Your task to perform on an android device: allow notifications from all sites in the chrome app Image 0: 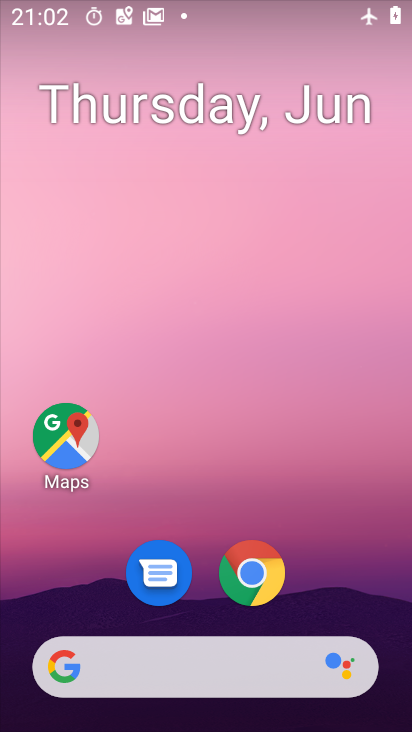
Step 0: drag from (310, 510) to (268, 243)
Your task to perform on an android device: allow notifications from all sites in the chrome app Image 1: 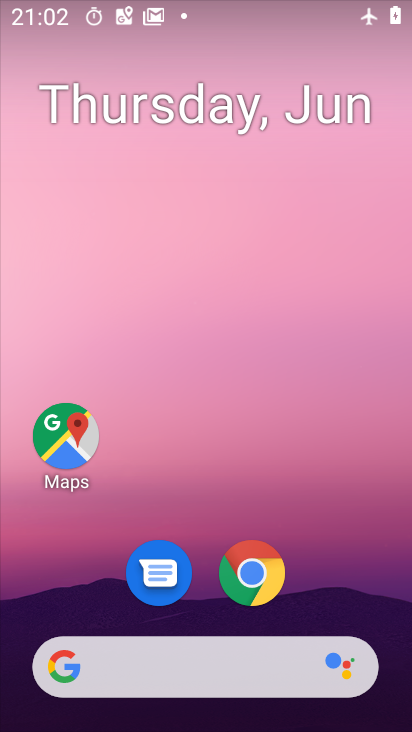
Step 1: click (240, 580)
Your task to perform on an android device: allow notifications from all sites in the chrome app Image 2: 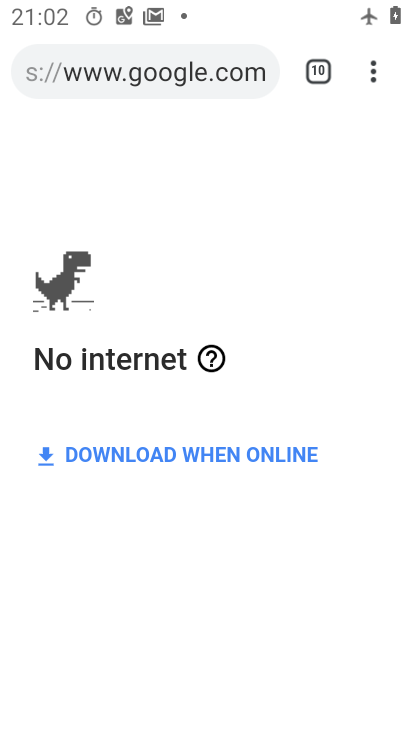
Step 2: click (377, 66)
Your task to perform on an android device: allow notifications from all sites in the chrome app Image 3: 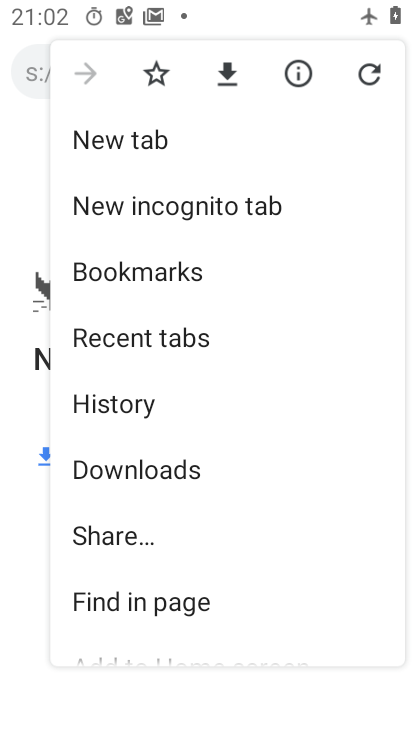
Step 3: drag from (147, 552) to (254, 250)
Your task to perform on an android device: allow notifications from all sites in the chrome app Image 4: 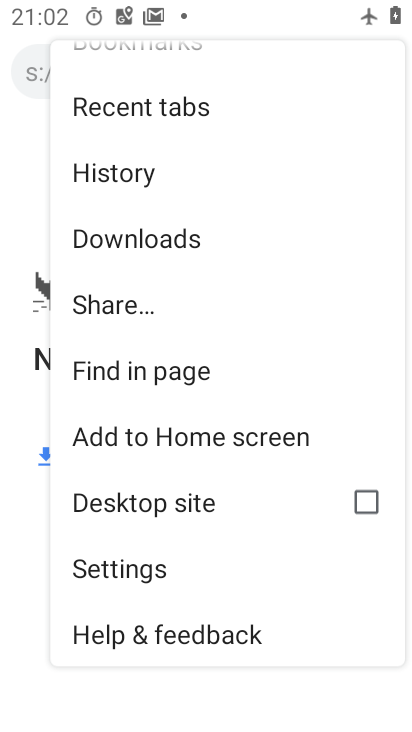
Step 4: click (140, 565)
Your task to perform on an android device: allow notifications from all sites in the chrome app Image 5: 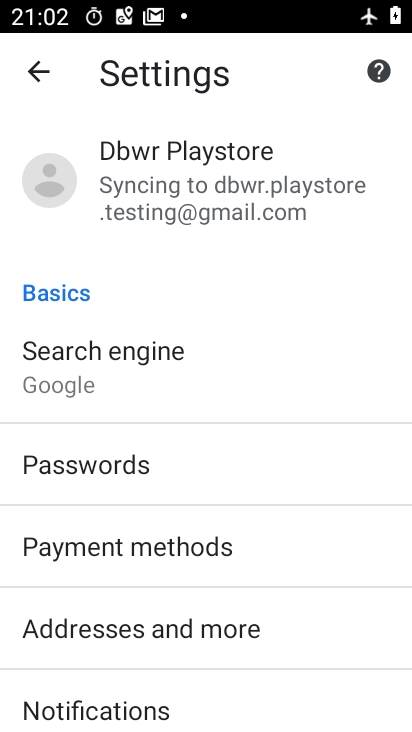
Step 5: drag from (138, 608) to (232, 277)
Your task to perform on an android device: allow notifications from all sites in the chrome app Image 6: 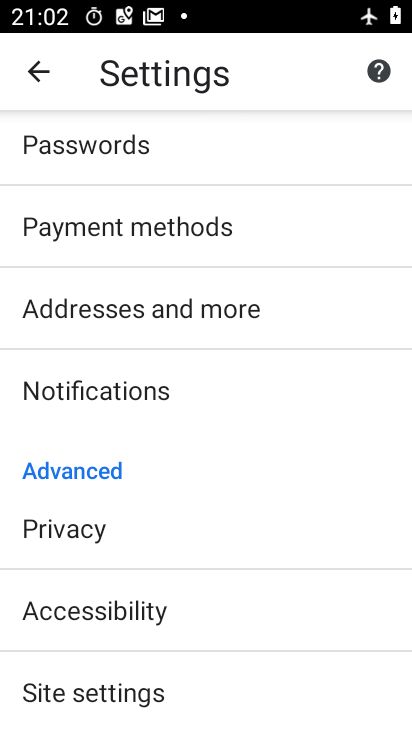
Step 6: drag from (110, 630) to (197, 404)
Your task to perform on an android device: allow notifications from all sites in the chrome app Image 7: 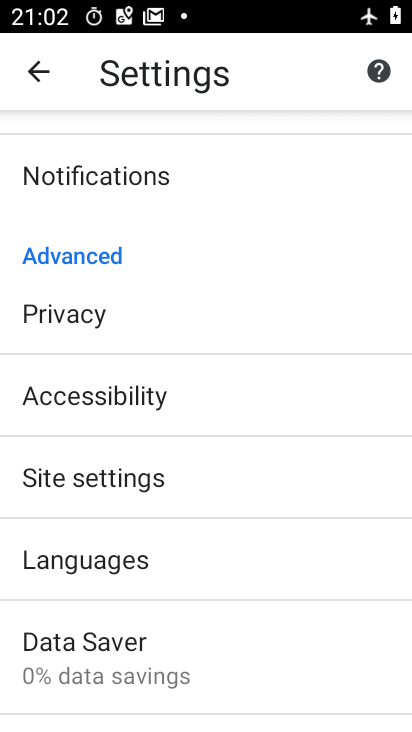
Step 7: click (136, 475)
Your task to perform on an android device: allow notifications from all sites in the chrome app Image 8: 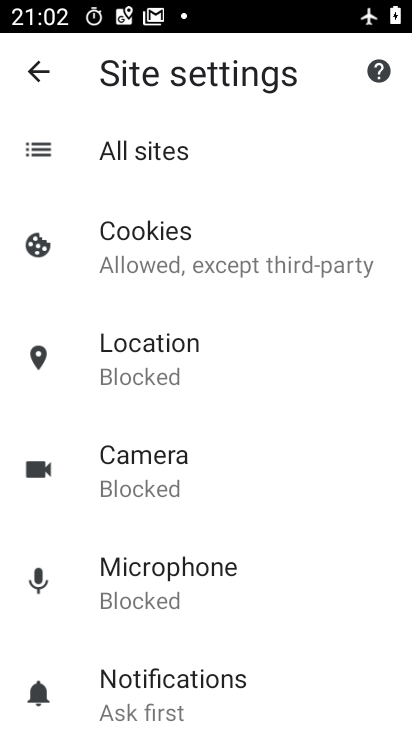
Step 8: click (203, 222)
Your task to perform on an android device: allow notifications from all sites in the chrome app Image 9: 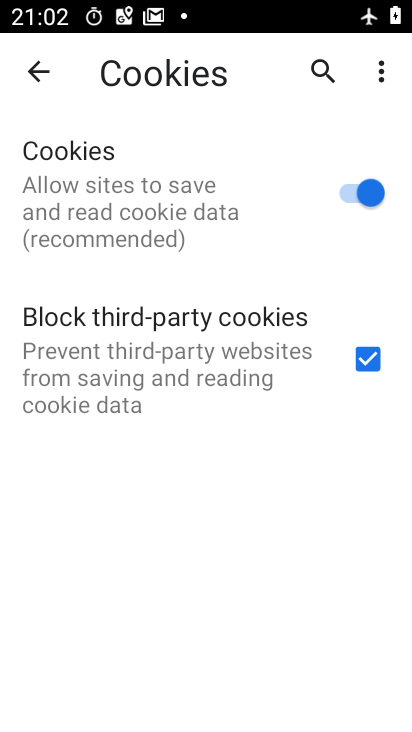
Step 9: click (33, 74)
Your task to perform on an android device: allow notifications from all sites in the chrome app Image 10: 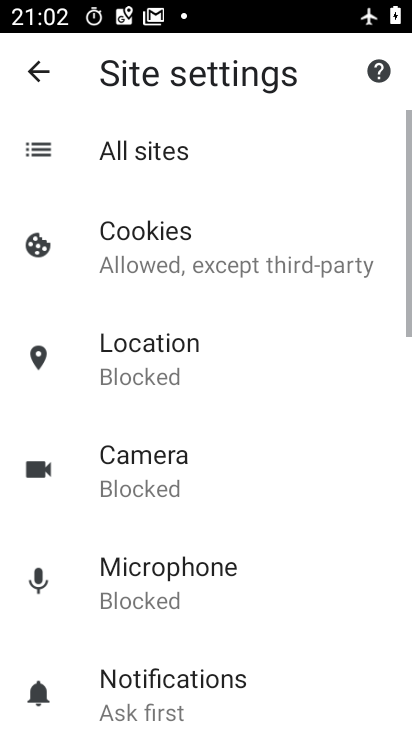
Step 10: click (203, 379)
Your task to perform on an android device: allow notifications from all sites in the chrome app Image 11: 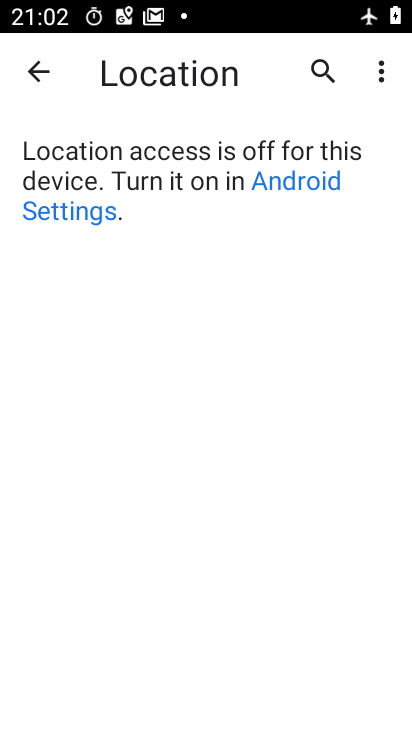
Step 11: click (35, 87)
Your task to perform on an android device: allow notifications from all sites in the chrome app Image 12: 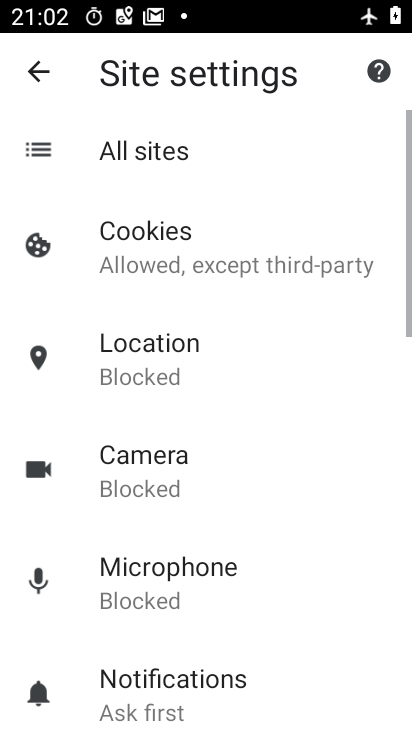
Step 12: click (160, 585)
Your task to perform on an android device: allow notifications from all sites in the chrome app Image 13: 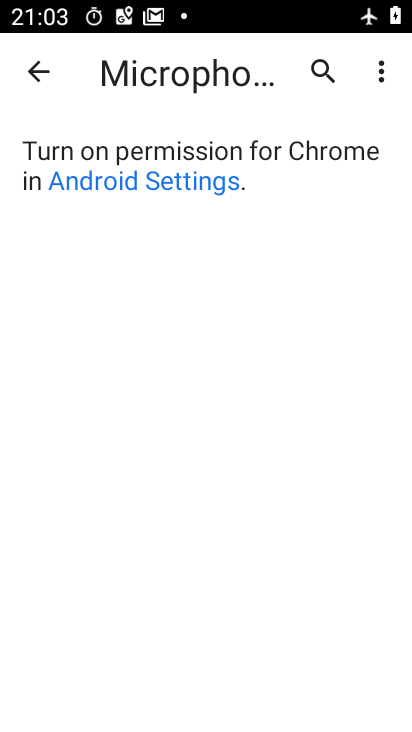
Step 13: drag from (170, 573) to (133, 260)
Your task to perform on an android device: allow notifications from all sites in the chrome app Image 14: 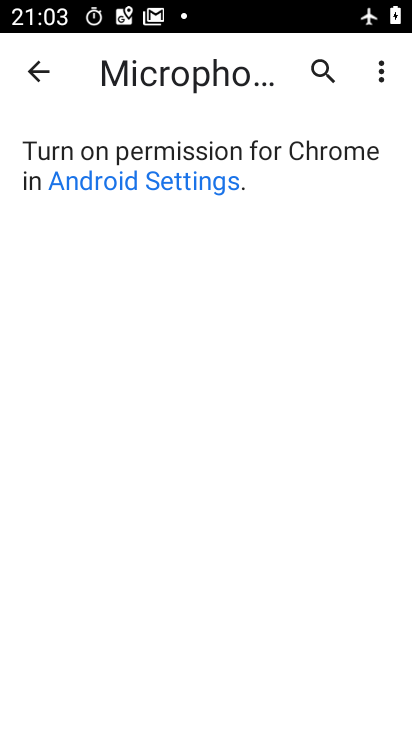
Step 14: click (46, 96)
Your task to perform on an android device: allow notifications from all sites in the chrome app Image 15: 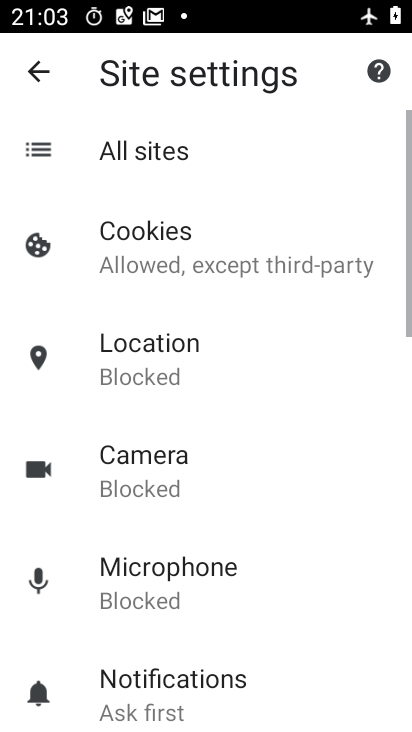
Step 15: drag from (193, 580) to (308, 236)
Your task to perform on an android device: allow notifications from all sites in the chrome app Image 16: 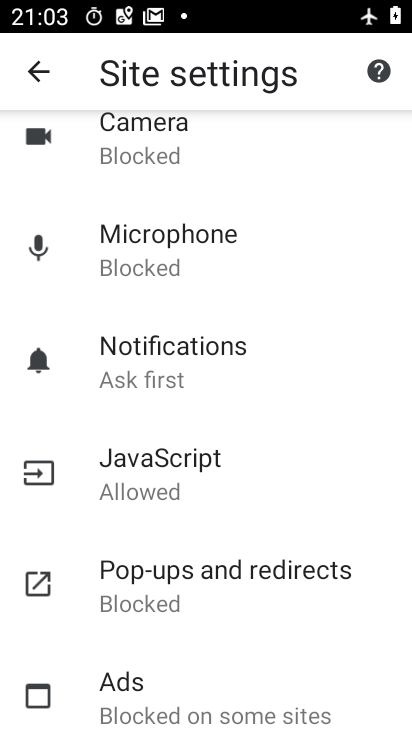
Step 16: click (209, 366)
Your task to perform on an android device: allow notifications from all sites in the chrome app Image 17: 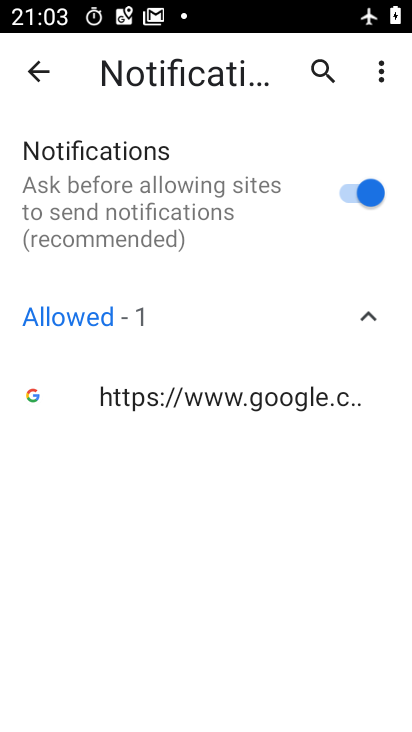
Step 17: click (35, 70)
Your task to perform on an android device: allow notifications from all sites in the chrome app Image 18: 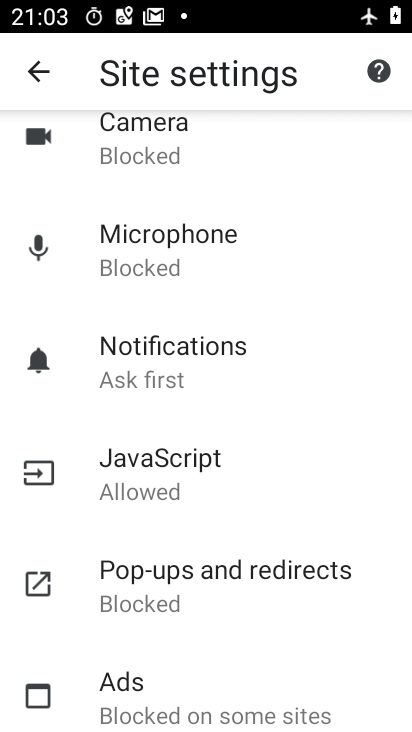
Step 18: click (204, 600)
Your task to perform on an android device: allow notifications from all sites in the chrome app Image 19: 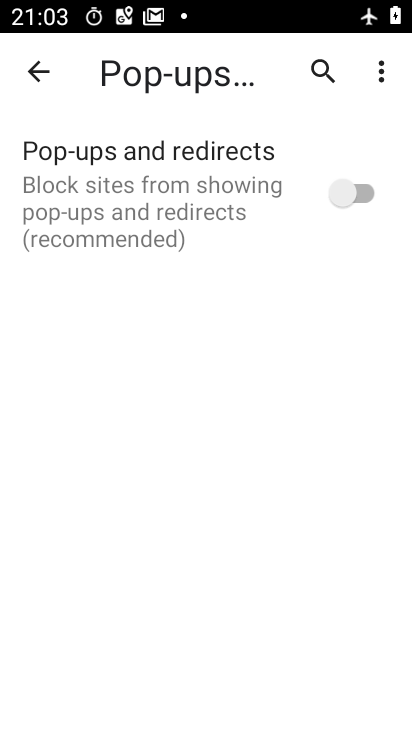
Step 19: click (363, 198)
Your task to perform on an android device: allow notifications from all sites in the chrome app Image 20: 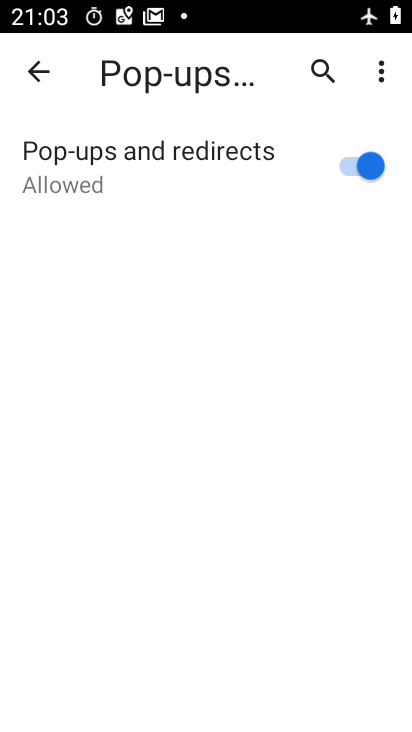
Step 20: click (24, 66)
Your task to perform on an android device: allow notifications from all sites in the chrome app Image 21: 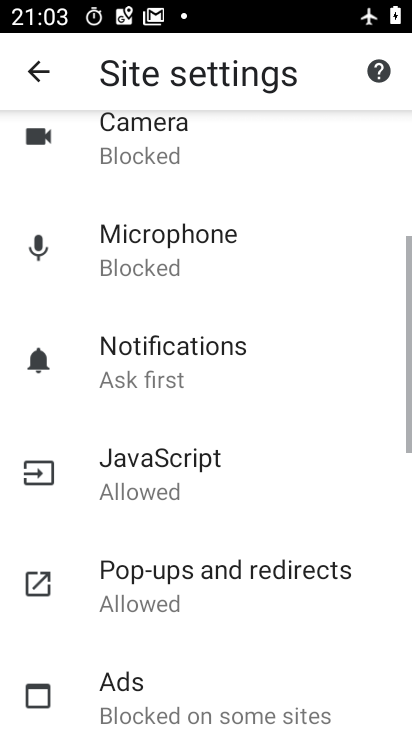
Step 21: task complete